Your task to perform on an android device: show emergency info Image 0: 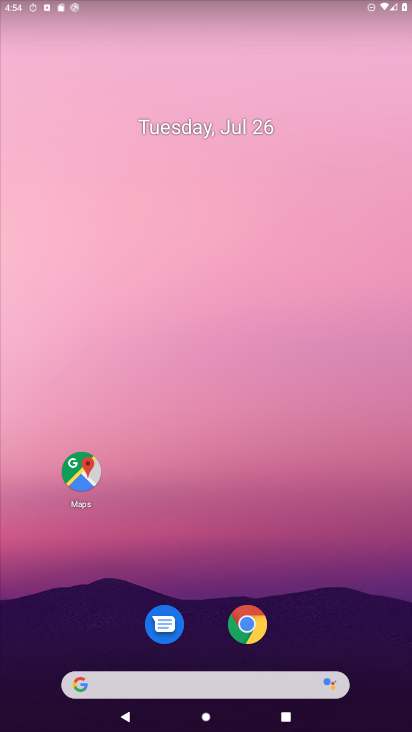
Step 0: drag from (204, 688) to (316, 14)
Your task to perform on an android device: show emergency info Image 1: 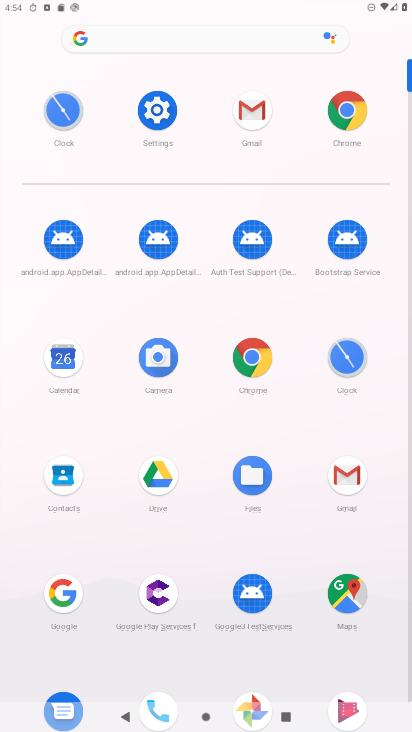
Step 1: click (155, 114)
Your task to perform on an android device: show emergency info Image 2: 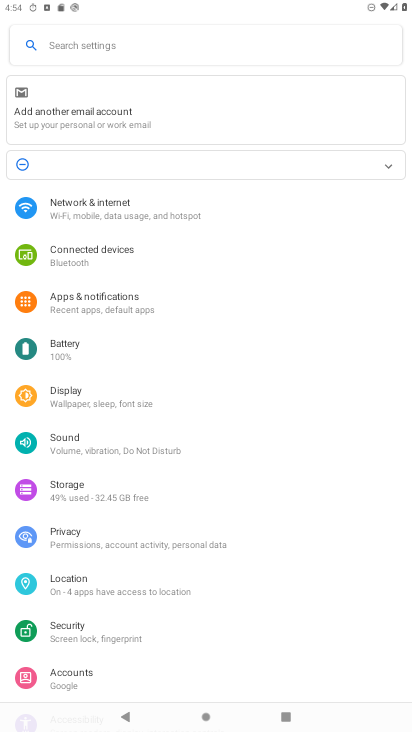
Step 2: drag from (155, 688) to (230, 235)
Your task to perform on an android device: show emergency info Image 3: 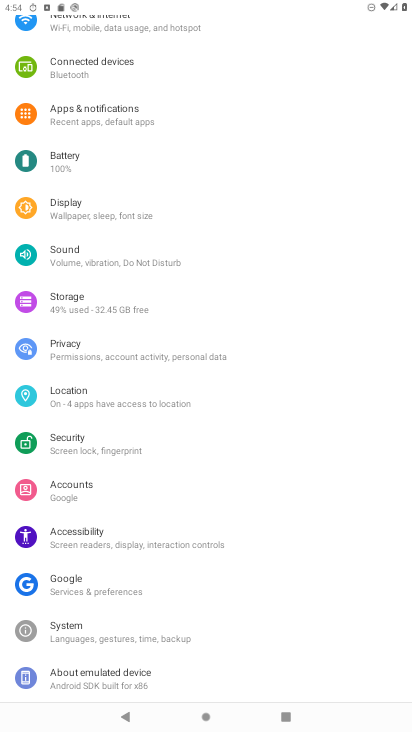
Step 3: drag from (107, 228) to (146, 488)
Your task to perform on an android device: show emergency info Image 4: 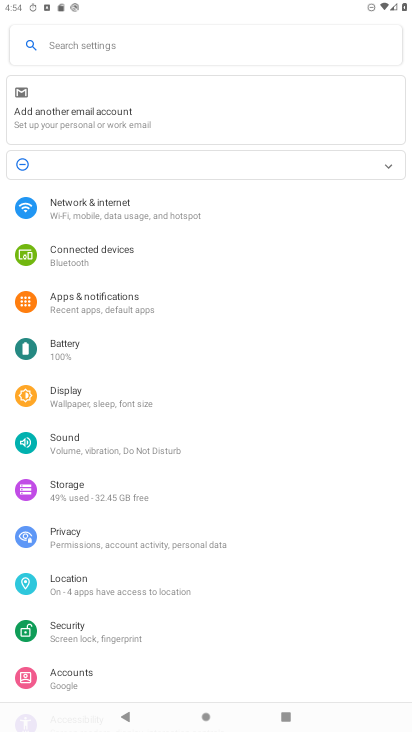
Step 4: drag from (176, 657) to (151, 108)
Your task to perform on an android device: show emergency info Image 5: 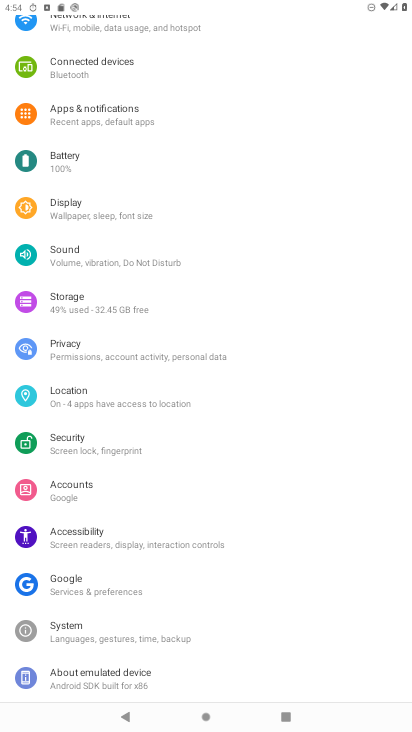
Step 5: click (156, 693)
Your task to perform on an android device: show emergency info Image 6: 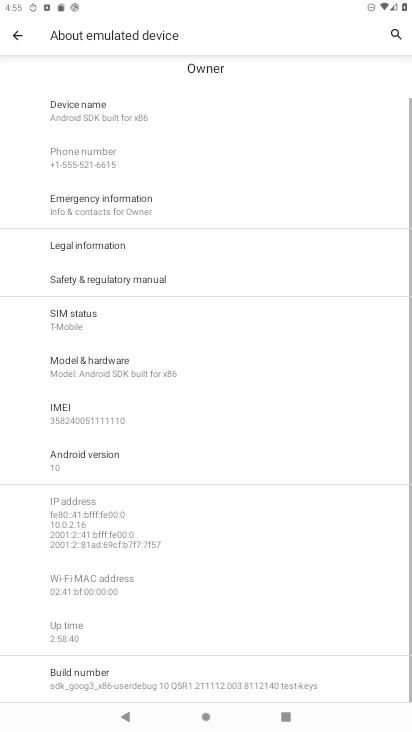
Step 6: click (108, 212)
Your task to perform on an android device: show emergency info Image 7: 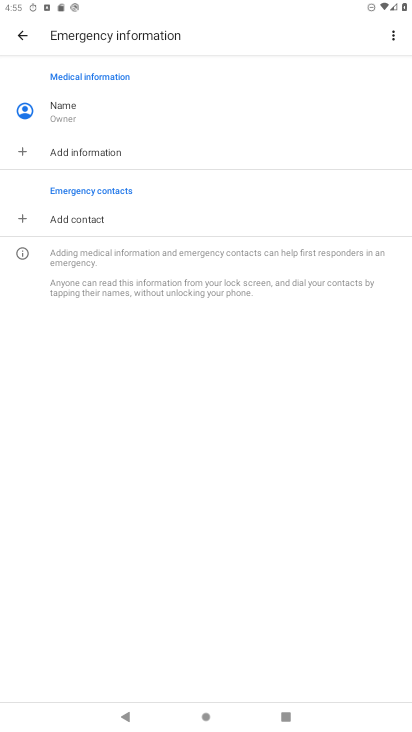
Step 7: task complete